Your task to perform on an android device: turn smart compose on in the gmail app Image 0: 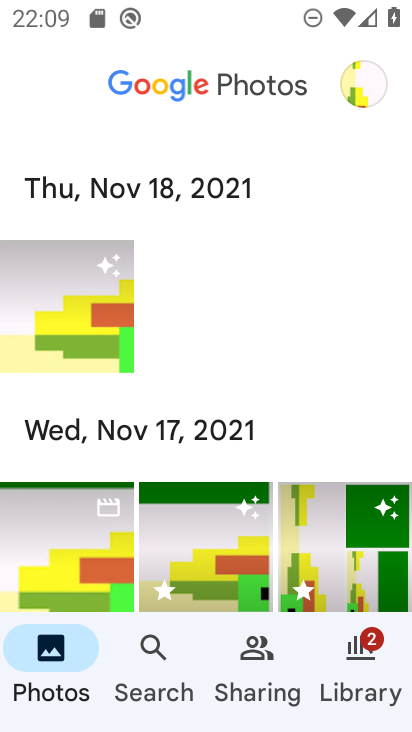
Step 0: press home button
Your task to perform on an android device: turn smart compose on in the gmail app Image 1: 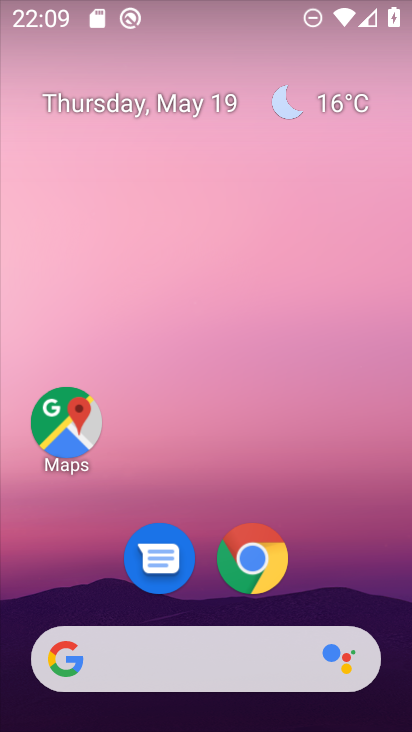
Step 1: drag from (205, 723) to (203, 124)
Your task to perform on an android device: turn smart compose on in the gmail app Image 2: 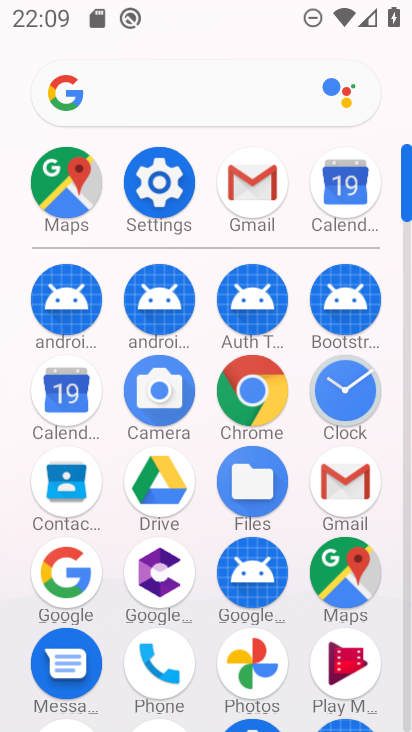
Step 2: click (345, 492)
Your task to perform on an android device: turn smart compose on in the gmail app Image 3: 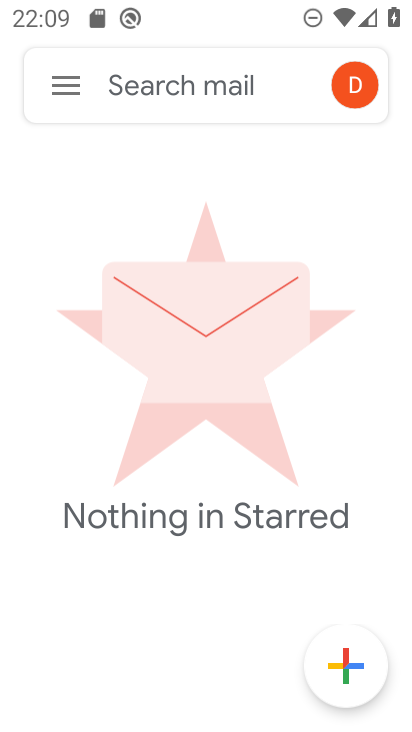
Step 3: click (66, 91)
Your task to perform on an android device: turn smart compose on in the gmail app Image 4: 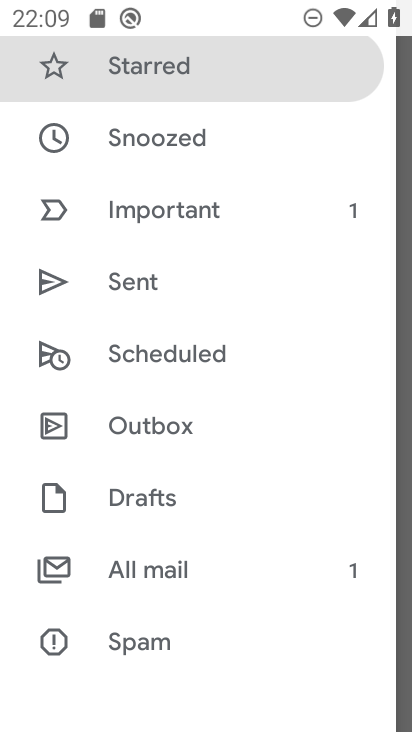
Step 4: drag from (185, 662) to (172, 137)
Your task to perform on an android device: turn smart compose on in the gmail app Image 5: 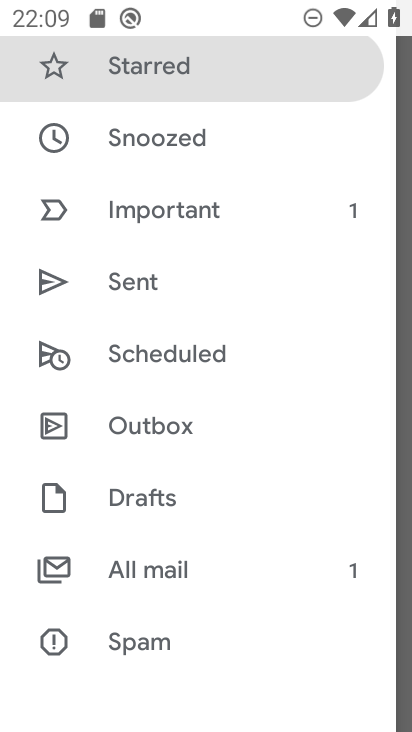
Step 5: drag from (141, 613) to (144, 149)
Your task to perform on an android device: turn smart compose on in the gmail app Image 6: 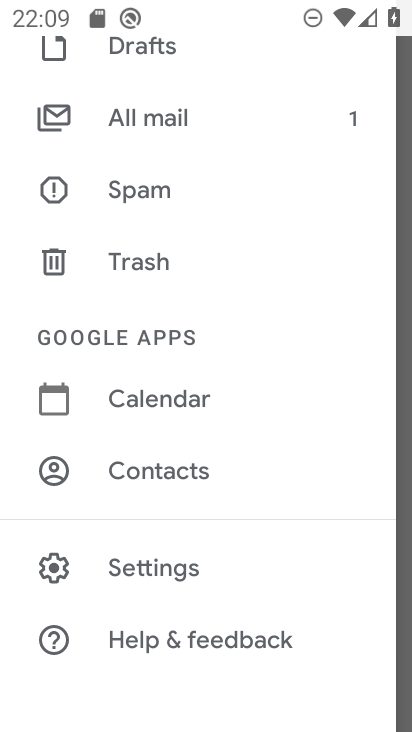
Step 6: click (140, 568)
Your task to perform on an android device: turn smart compose on in the gmail app Image 7: 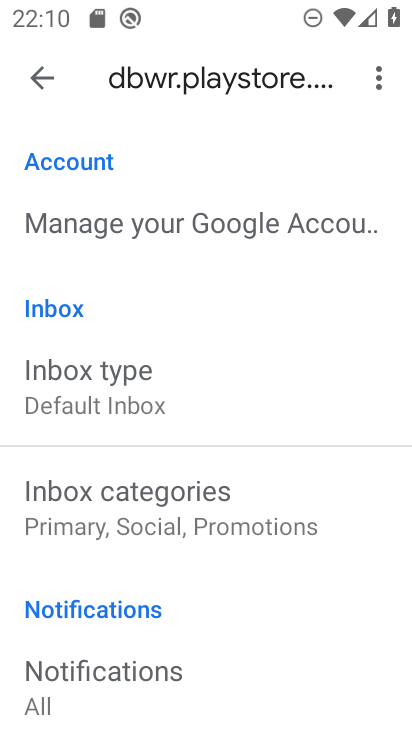
Step 7: task complete